Your task to perform on an android device: Go to location settings Image 0: 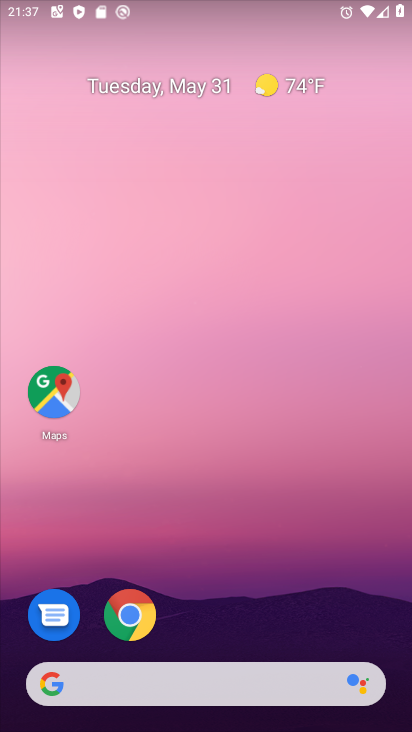
Step 0: drag from (209, 636) to (254, 171)
Your task to perform on an android device: Go to location settings Image 1: 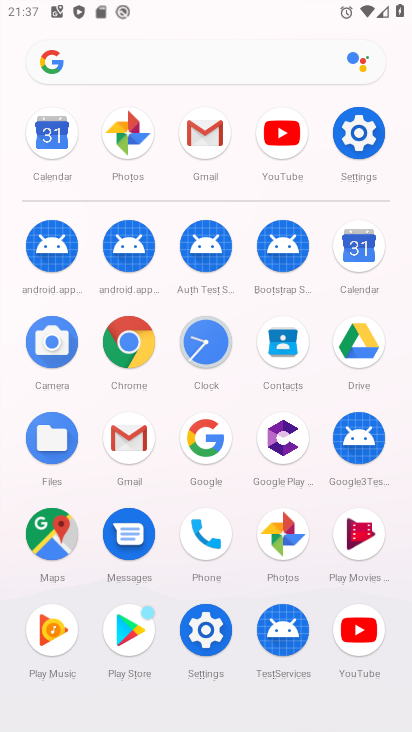
Step 1: click (346, 155)
Your task to perform on an android device: Go to location settings Image 2: 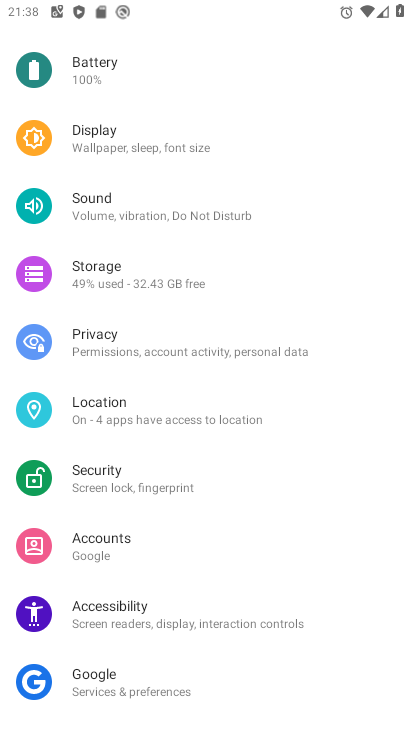
Step 2: drag from (183, 601) to (249, 279)
Your task to perform on an android device: Go to location settings Image 3: 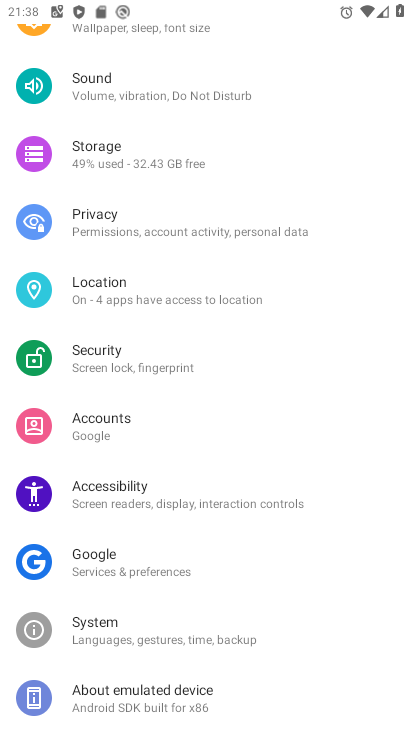
Step 3: drag from (187, 577) to (206, 325)
Your task to perform on an android device: Go to location settings Image 4: 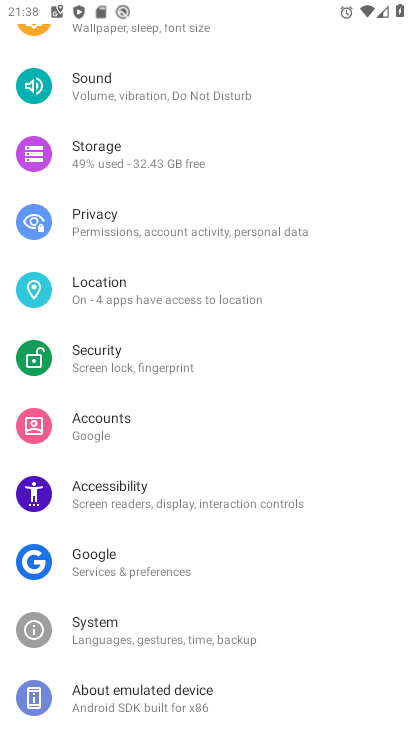
Step 4: click (170, 286)
Your task to perform on an android device: Go to location settings Image 5: 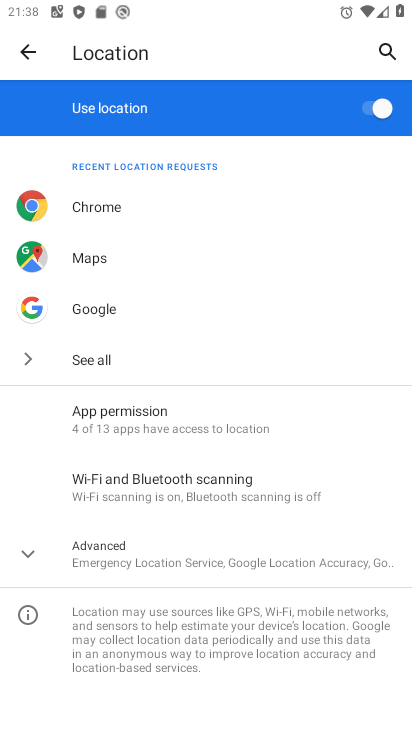
Step 5: task complete